Your task to perform on an android device: visit the assistant section in the google photos Image 0: 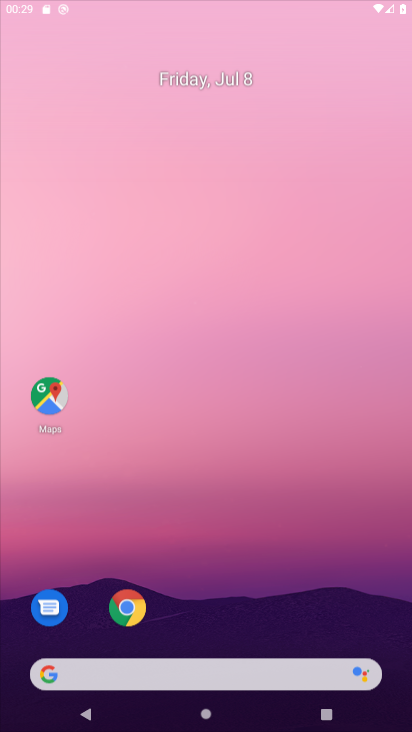
Step 0: drag from (280, 620) to (280, 200)
Your task to perform on an android device: visit the assistant section in the google photos Image 1: 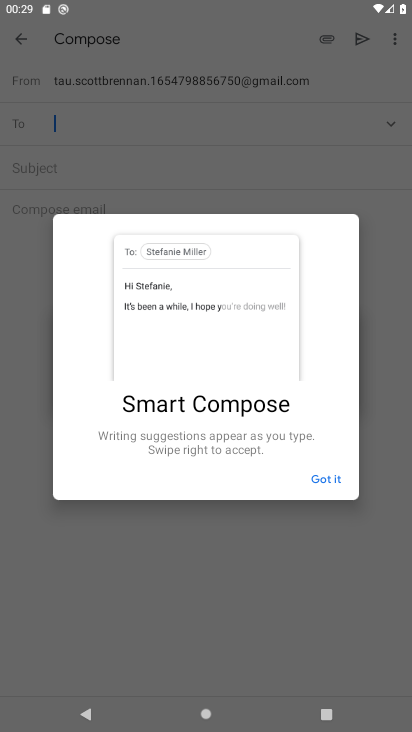
Step 1: press home button
Your task to perform on an android device: visit the assistant section in the google photos Image 2: 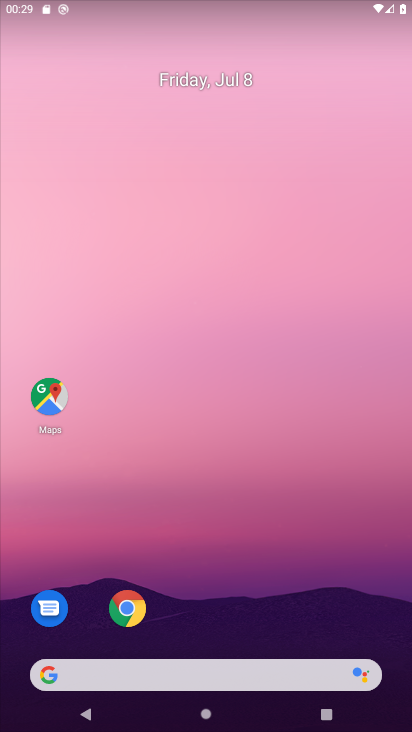
Step 2: drag from (292, 629) to (259, 220)
Your task to perform on an android device: visit the assistant section in the google photos Image 3: 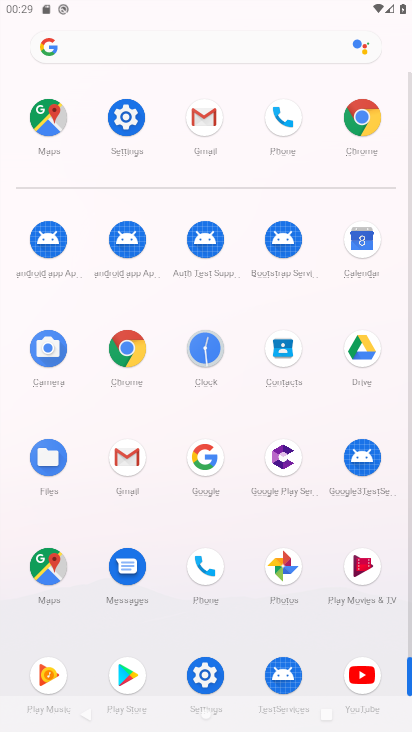
Step 3: click (285, 571)
Your task to perform on an android device: visit the assistant section in the google photos Image 4: 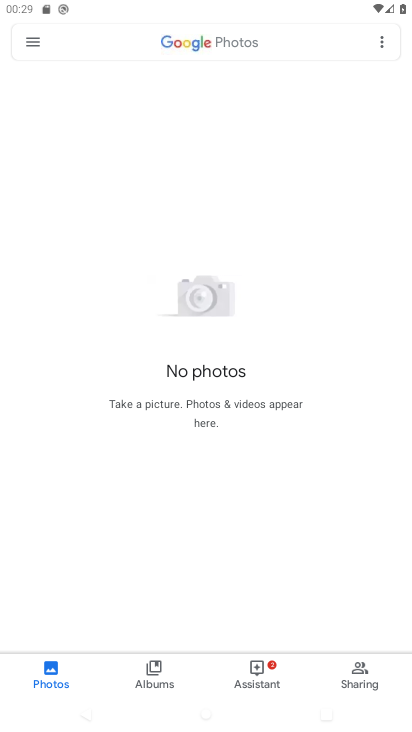
Step 4: click (252, 673)
Your task to perform on an android device: visit the assistant section in the google photos Image 5: 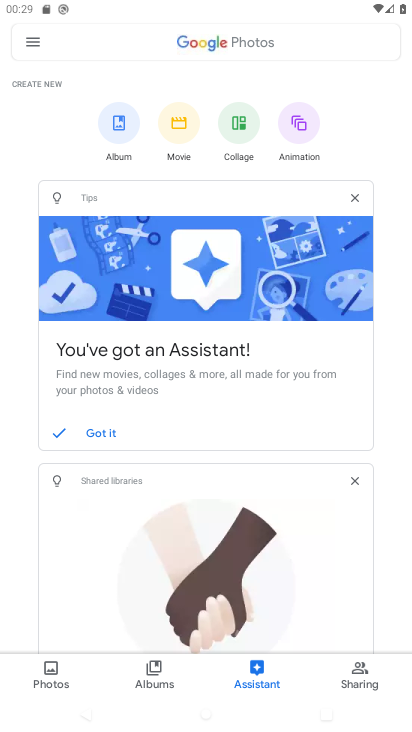
Step 5: task complete